Your task to perform on an android device: check google app version Image 0: 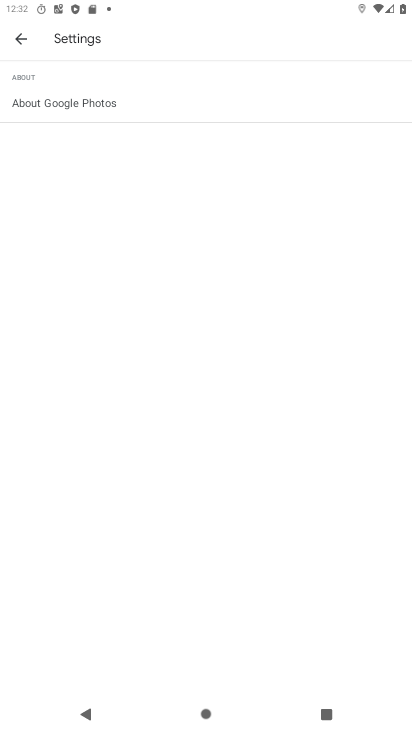
Step 0: press home button
Your task to perform on an android device: check google app version Image 1: 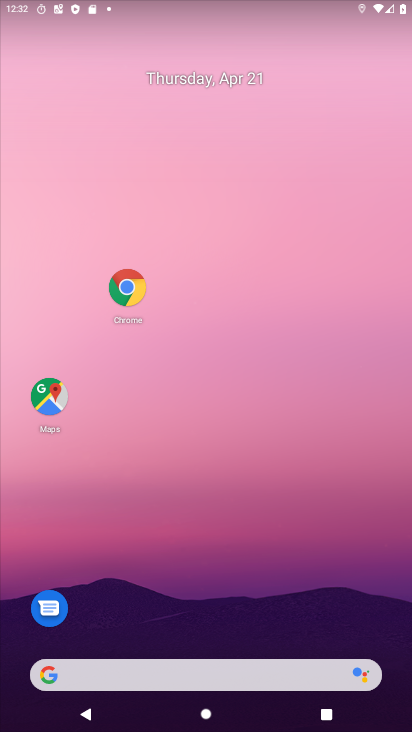
Step 1: drag from (129, 453) to (58, 123)
Your task to perform on an android device: check google app version Image 2: 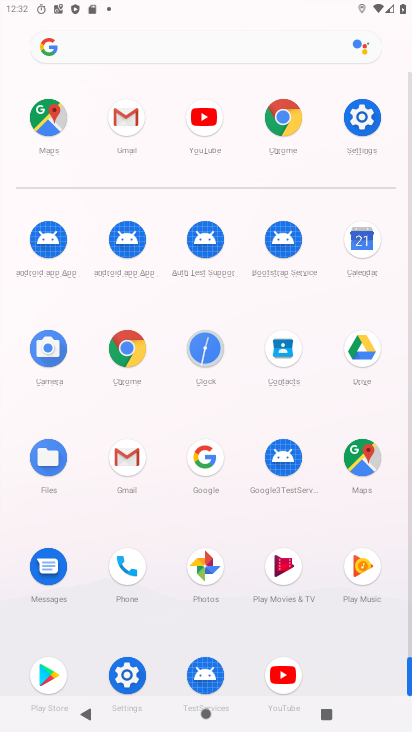
Step 2: click (202, 464)
Your task to perform on an android device: check google app version Image 3: 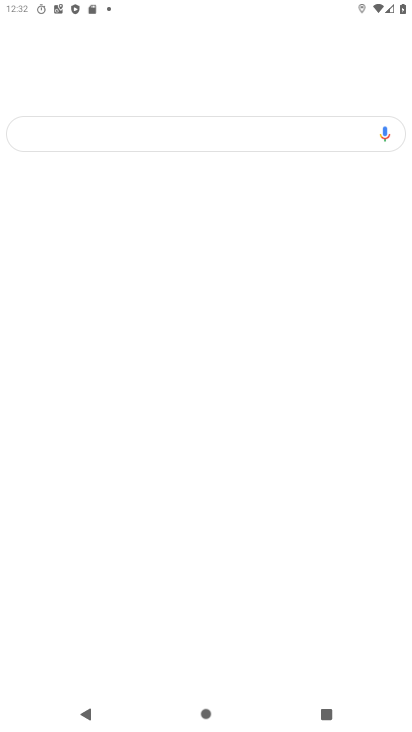
Step 3: click (202, 460)
Your task to perform on an android device: check google app version Image 4: 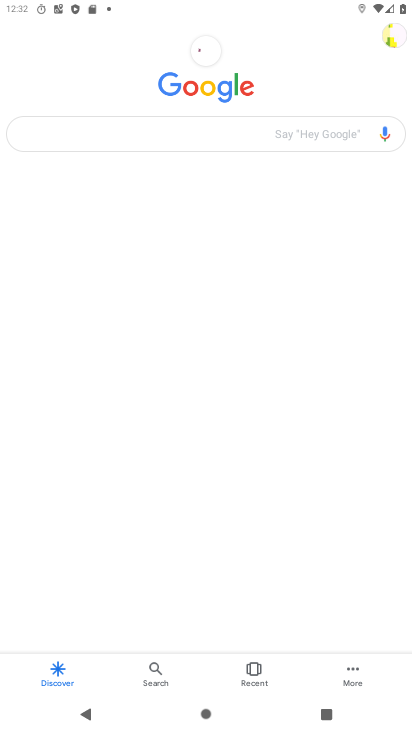
Step 4: click (340, 670)
Your task to perform on an android device: check google app version Image 5: 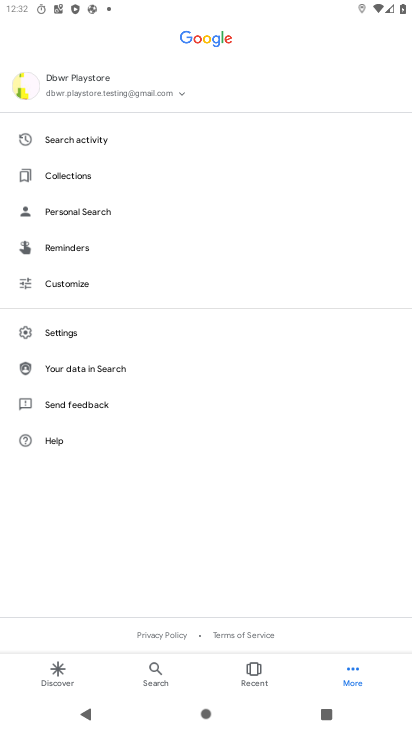
Step 5: click (61, 334)
Your task to perform on an android device: check google app version Image 6: 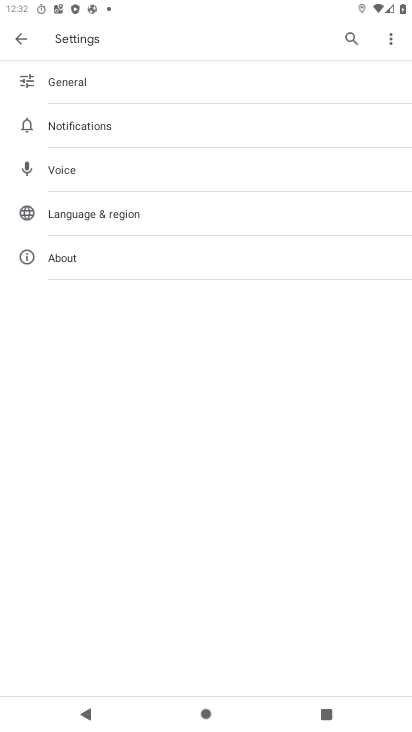
Step 6: click (56, 259)
Your task to perform on an android device: check google app version Image 7: 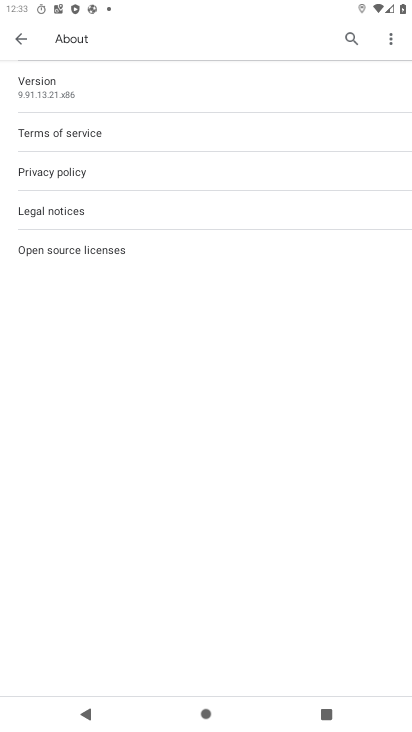
Step 7: click (30, 95)
Your task to perform on an android device: check google app version Image 8: 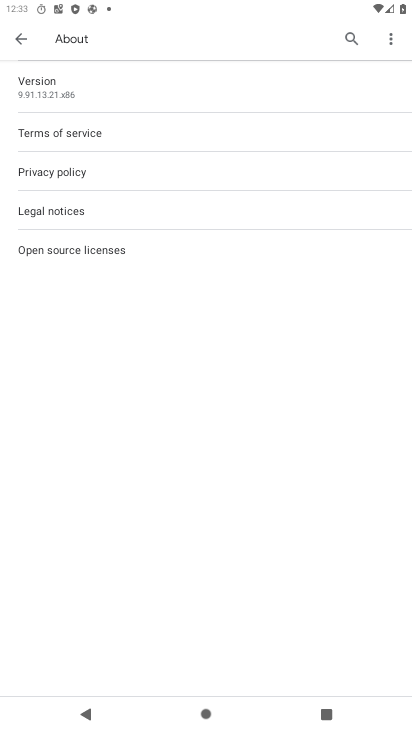
Step 8: task complete